Your task to perform on an android device: Open Google Chrome and open the bookmarks view Image 0: 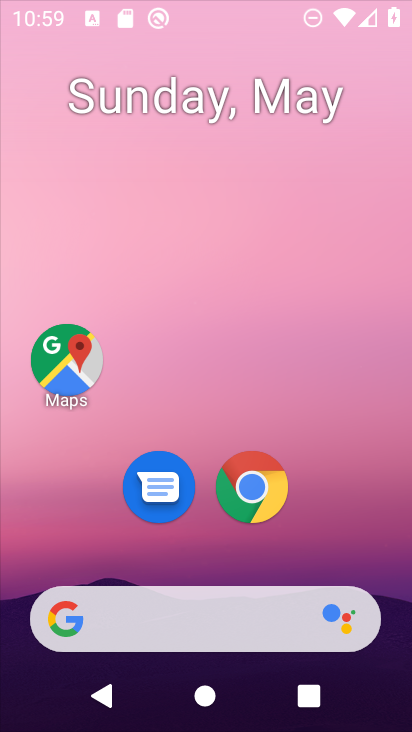
Step 0: drag from (260, 534) to (279, 125)
Your task to perform on an android device: Open Google Chrome and open the bookmarks view Image 1: 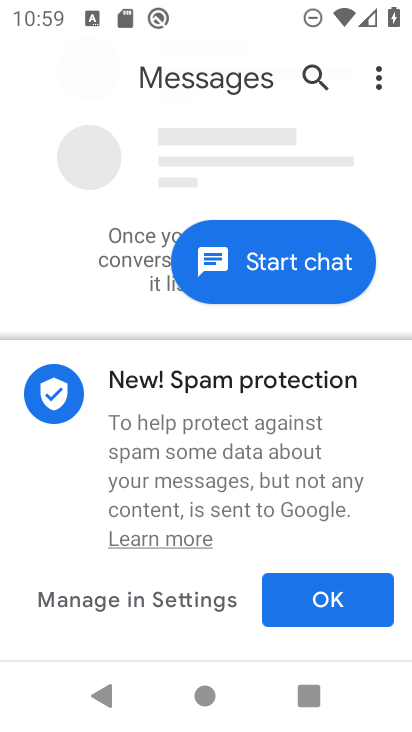
Step 1: press home button
Your task to perform on an android device: Open Google Chrome and open the bookmarks view Image 2: 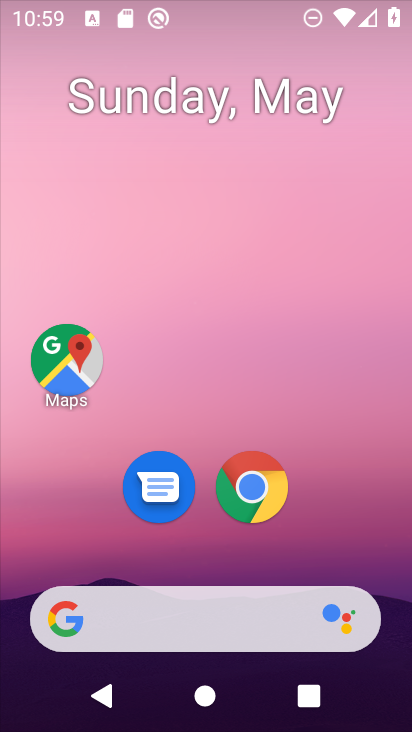
Step 2: drag from (213, 565) to (264, 163)
Your task to perform on an android device: Open Google Chrome and open the bookmarks view Image 3: 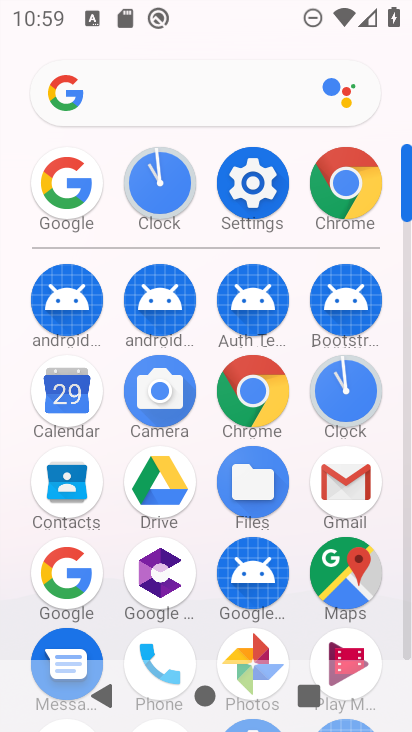
Step 3: click (260, 420)
Your task to perform on an android device: Open Google Chrome and open the bookmarks view Image 4: 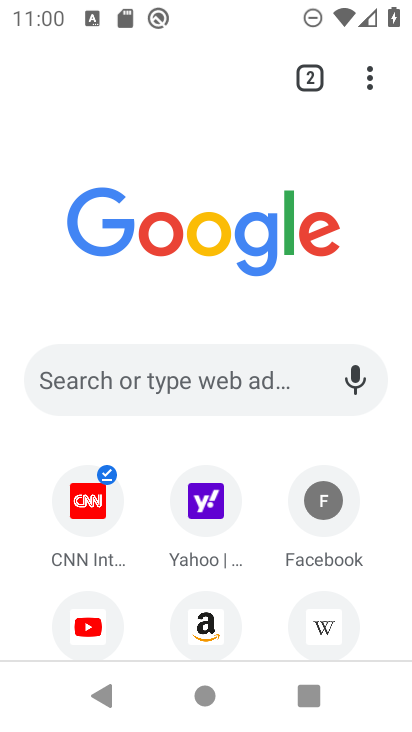
Step 4: click (362, 70)
Your task to perform on an android device: Open Google Chrome and open the bookmarks view Image 5: 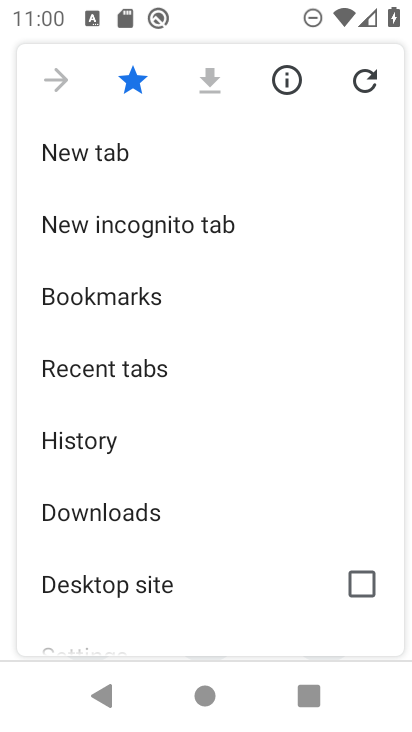
Step 5: click (165, 294)
Your task to perform on an android device: Open Google Chrome and open the bookmarks view Image 6: 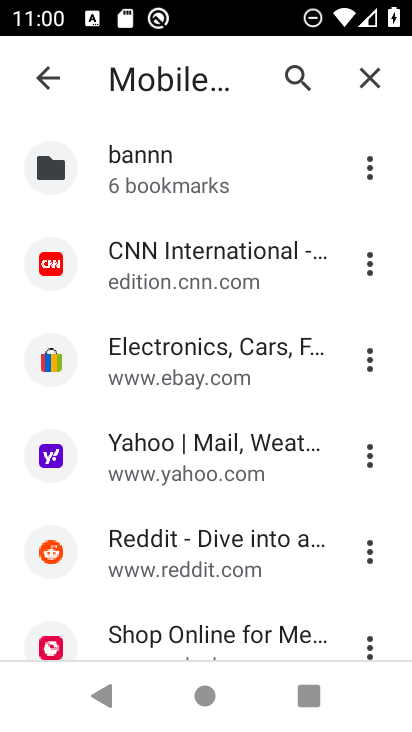
Step 6: task complete